Your task to perform on an android device: turn on javascript in the chrome app Image 0: 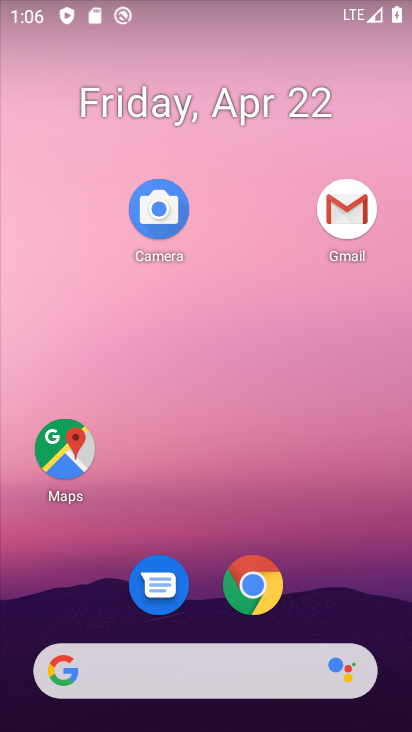
Step 0: click (252, 600)
Your task to perform on an android device: turn on javascript in the chrome app Image 1: 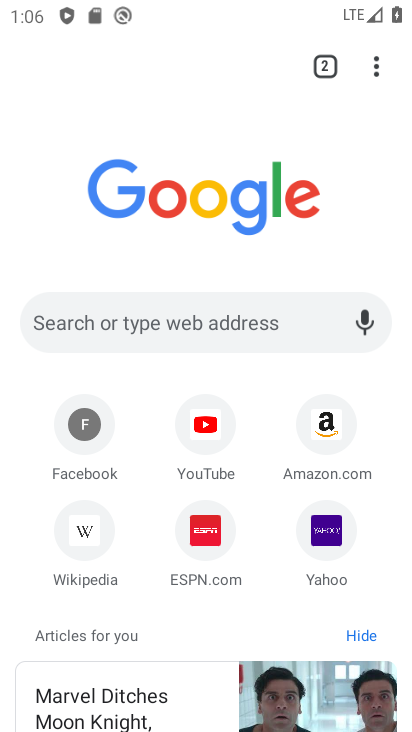
Step 1: drag from (379, 60) to (192, 603)
Your task to perform on an android device: turn on javascript in the chrome app Image 2: 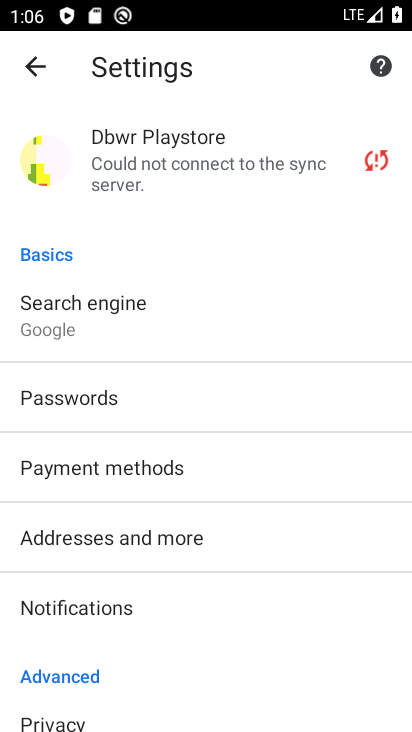
Step 2: drag from (245, 641) to (250, 252)
Your task to perform on an android device: turn on javascript in the chrome app Image 3: 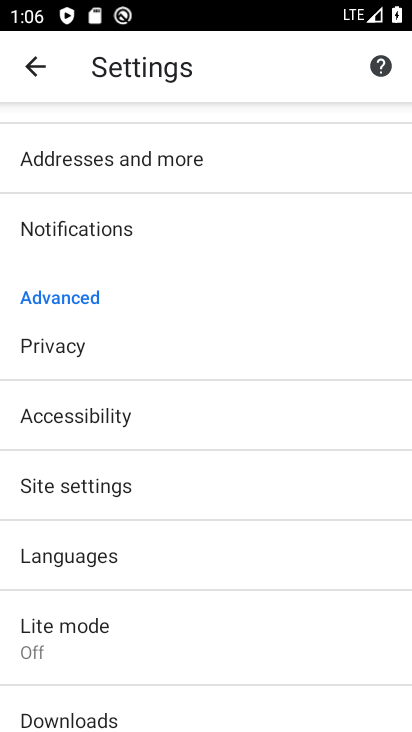
Step 3: click (188, 506)
Your task to perform on an android device: turn on javascript in the chrome app Image 4: 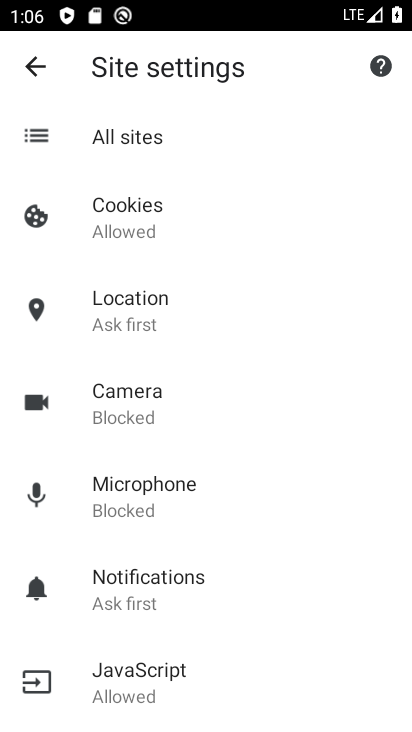
Step 4: click (218, 675)
Your task to perform on an android device: turn on javascript in the chrome app Image 5: 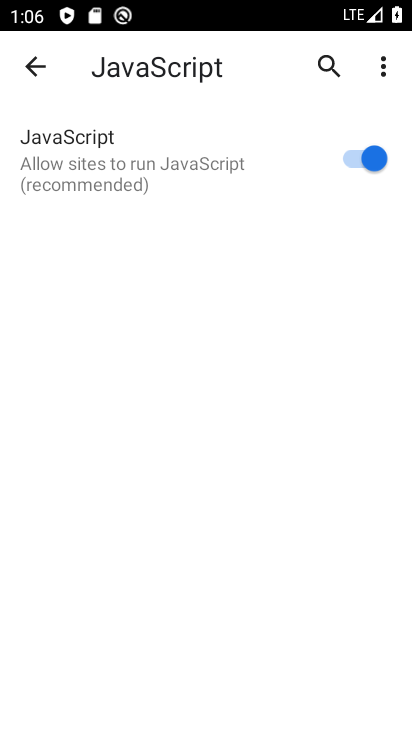
Step 5: task complete